Your task to perform on an android device: open a bookmark in the chrome app Image 0: 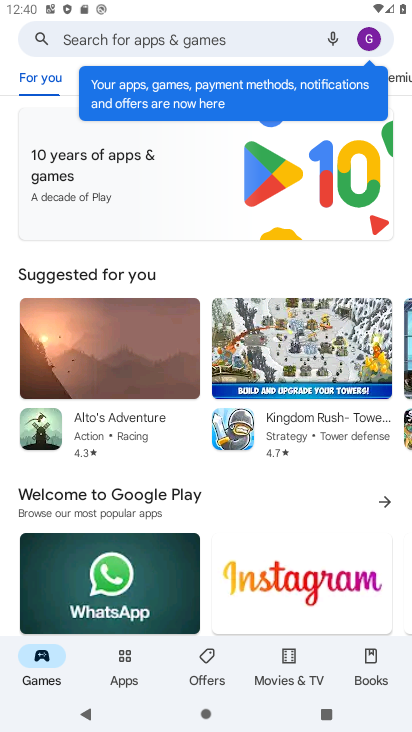
Step 0: press home button
Your task to perform on an android device: open a bookmark in the chrome app Image 1: 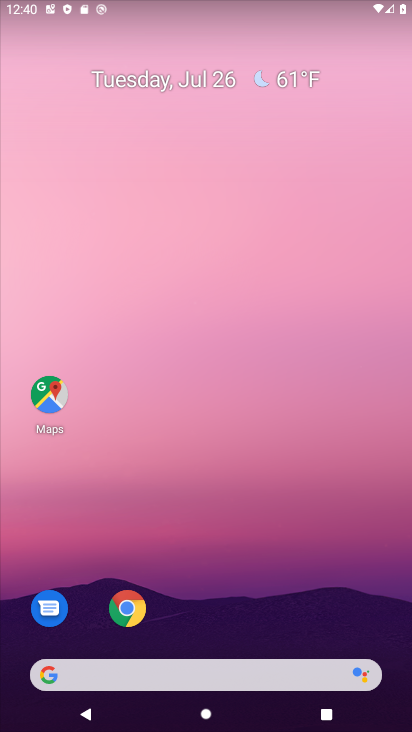
Step 1: drag from (317, 588) to (310, 135)
Your task to perform on an android device: open a bookmark in the chrome app Image 2: 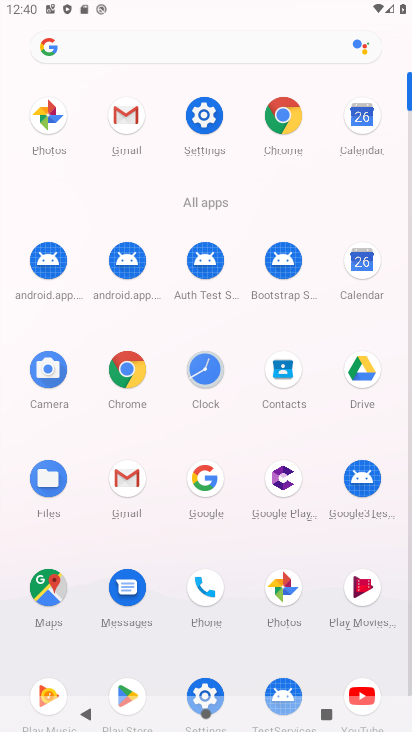
Step 2: click (131, 374)
Your task to perform on an android device: open a bookmark in the chrome app Image 3: 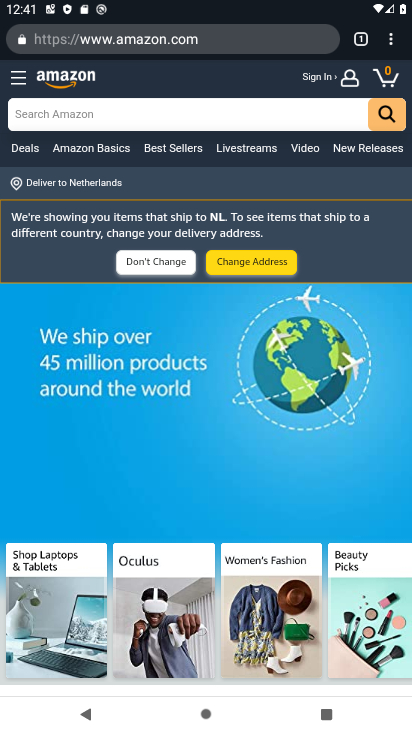
Step 3: click (391, 40)
Your task to perform on an android device: open a bookmark in the chrome app Image 4: 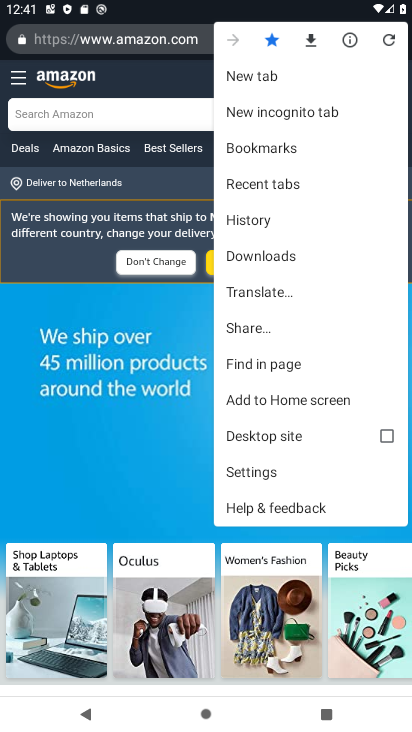
Step 4: click (296, 151)
Your task to perform on an android device: open a bookmark in the chrome app Image 5: 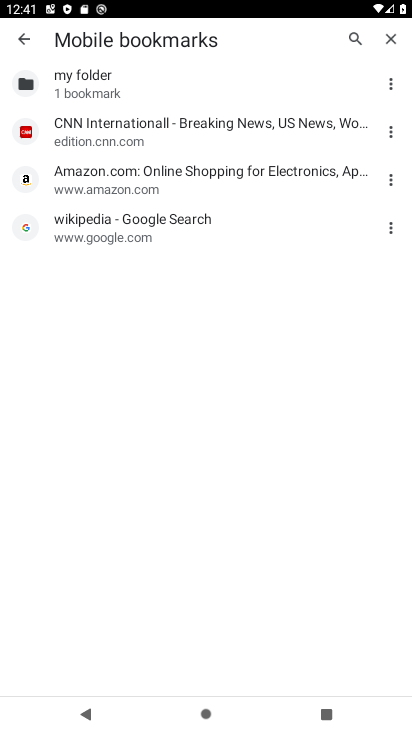
Step 5: click (257, 171)
Your task to perform on an android device: open a bookmark in the chrome app Image 6: 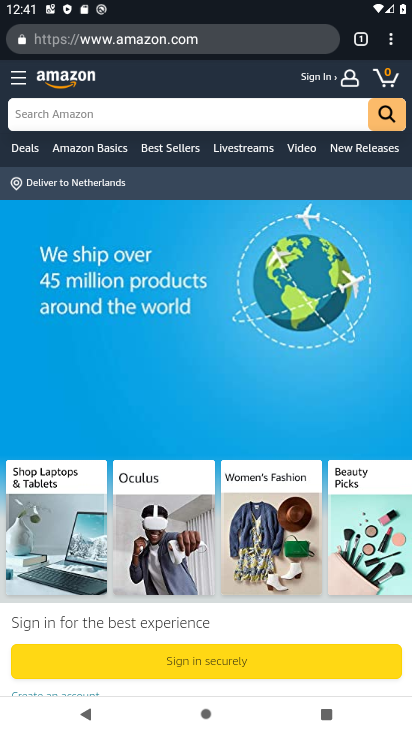
Step 6: task complete